Your task to perform on an android device: Open my contact list Image 0: 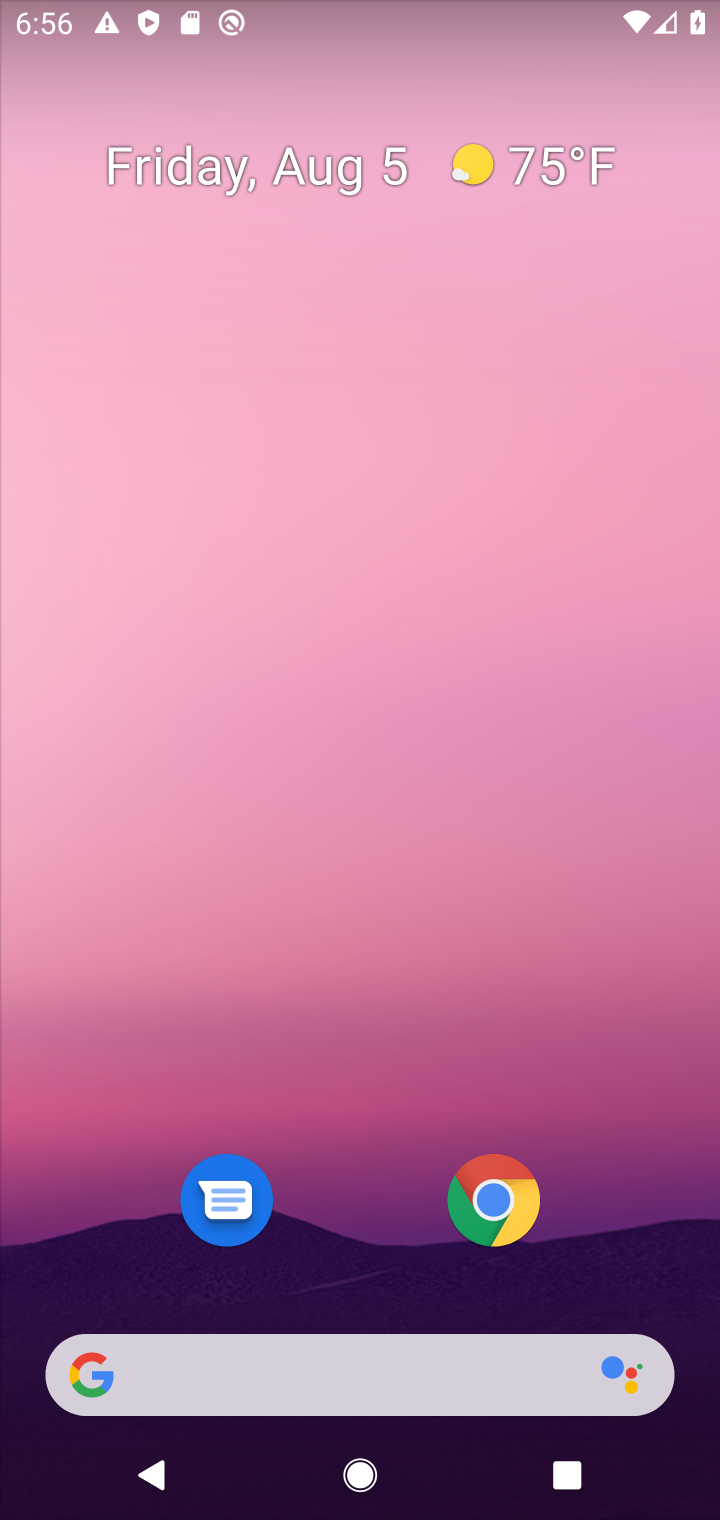
Step 0: drag from (680, 1252) to (485, 100)
Your task to perform on an android device: Open my contact list Image 1: 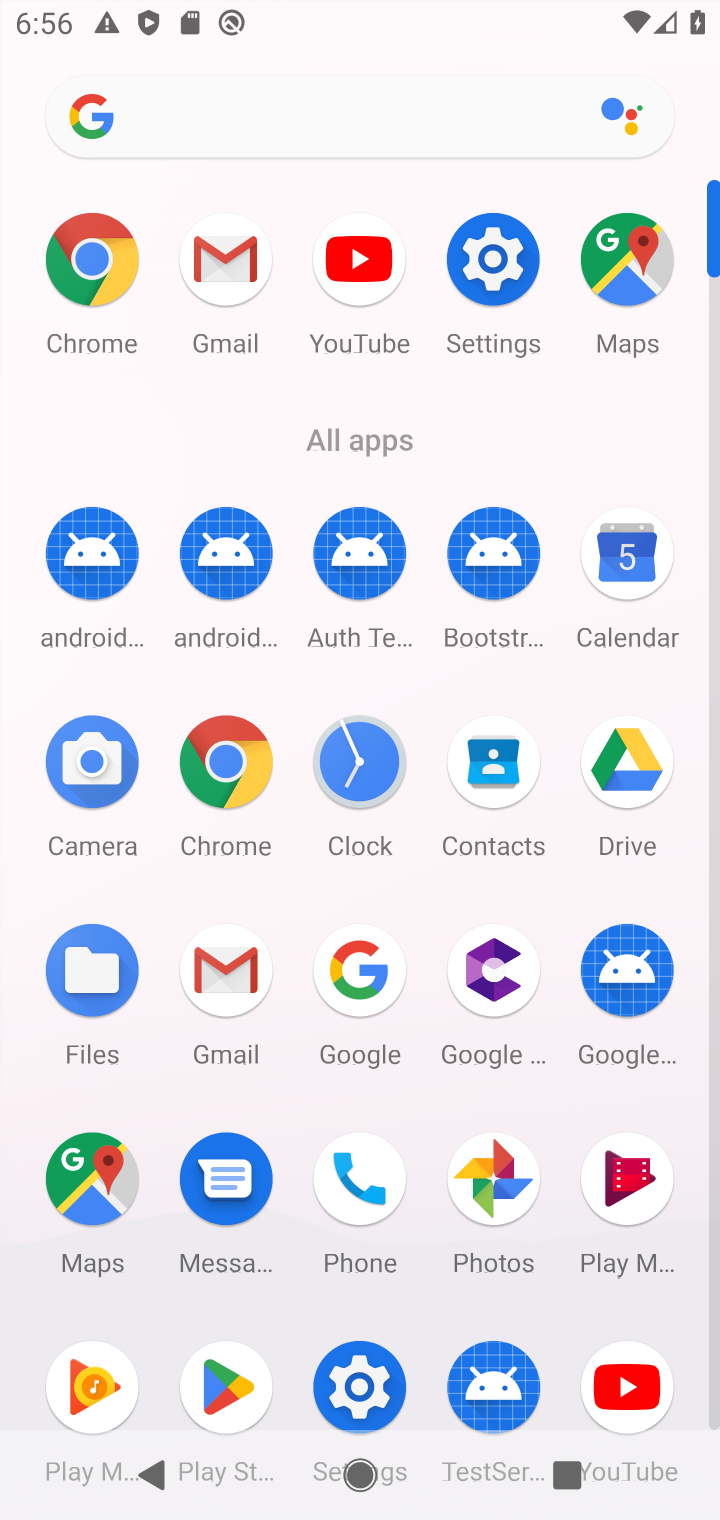
Step 1: click (499, 767)
Your task to perform on an android device: Open my contact list Image 2: 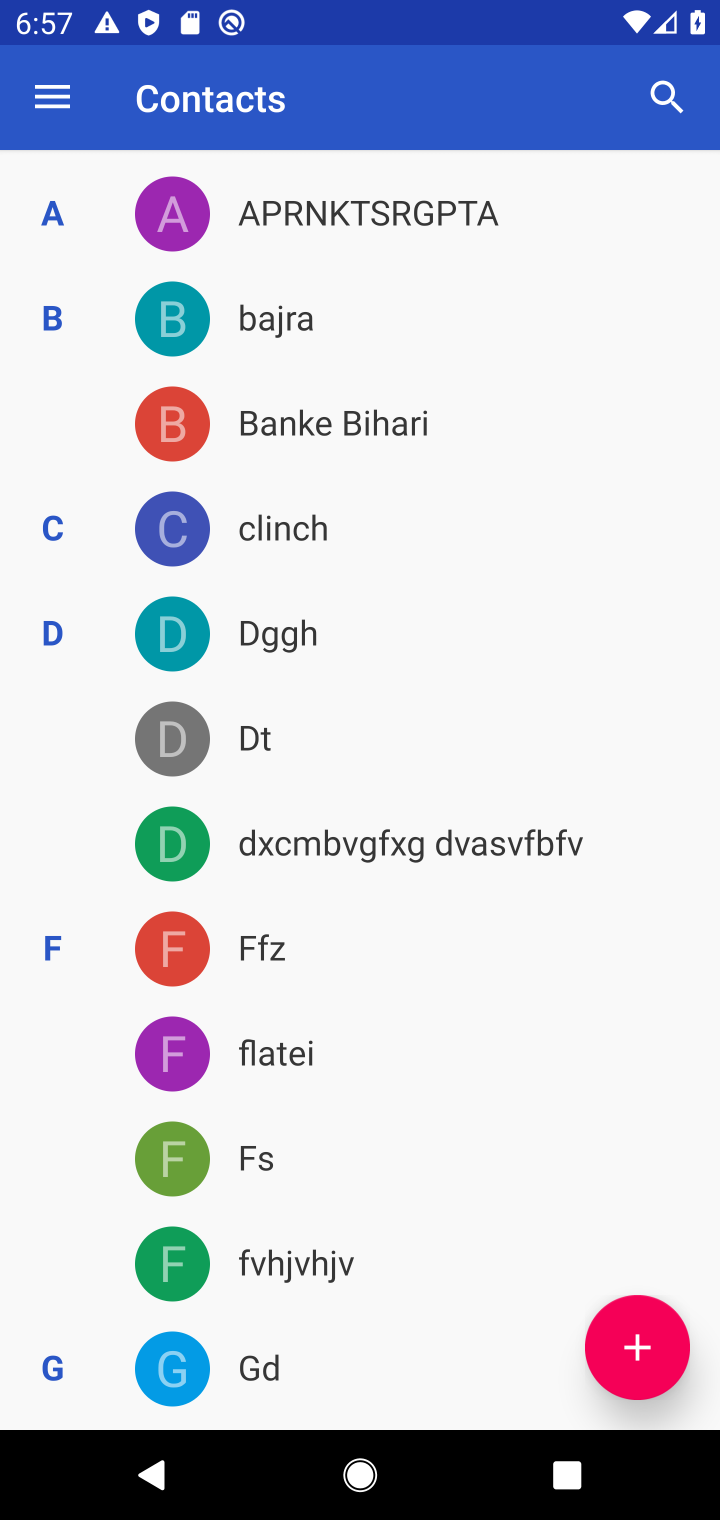
Step 2: task complete